Your task to perform on an android device: toggle javascript in the chrome app Image 0: 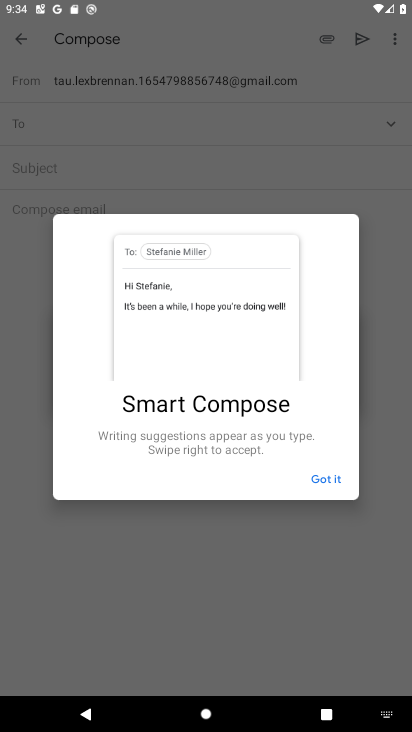
Step 0: press home button
Your task to perform on an android device: toggle javascript in the chrome app Image 1: 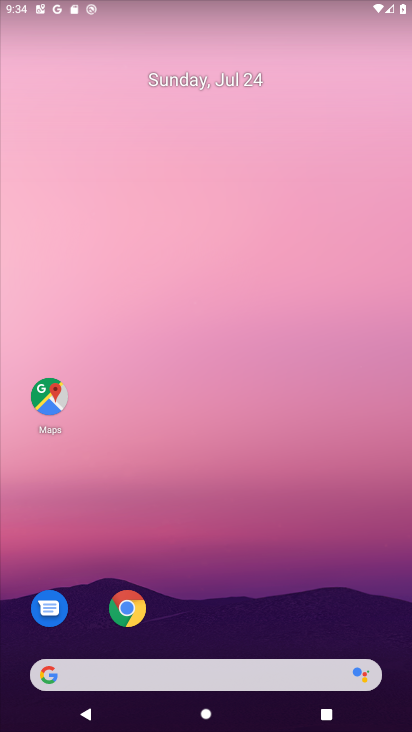
Step 1: click (135, 608)
Your task to perform on an android device: toggle javascript in the chrome app Image 2: 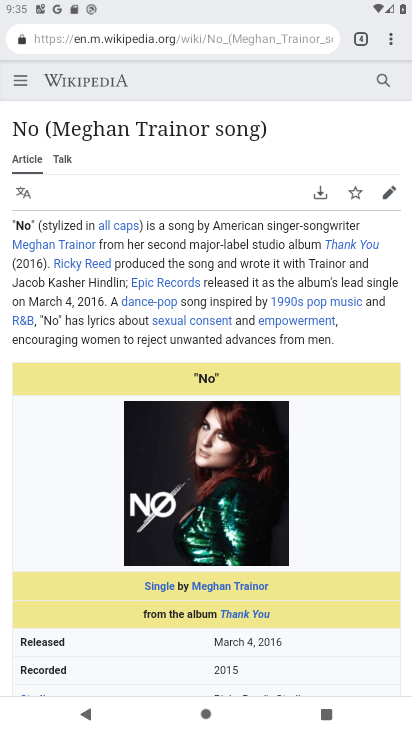
Step 2: click (392, 34)
Your task to perform on an android device: toggle javascript in the chrome app Image 3: 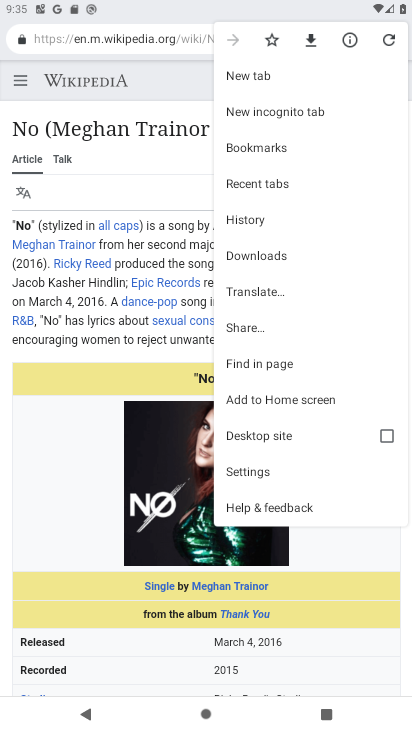
Step 3: click (240, 470)
Your task to perform on an android device: toggle javascript in the chrome app Image 4: 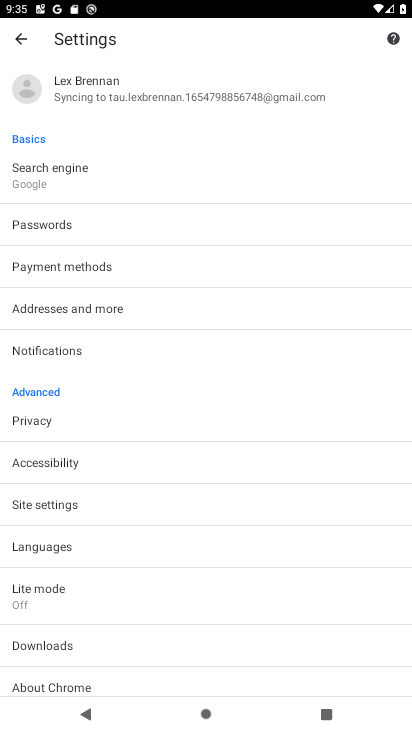
Step 4: click (60, 489)
Your task to perform on an android device: toggle javascript in the chrome app Image 5: 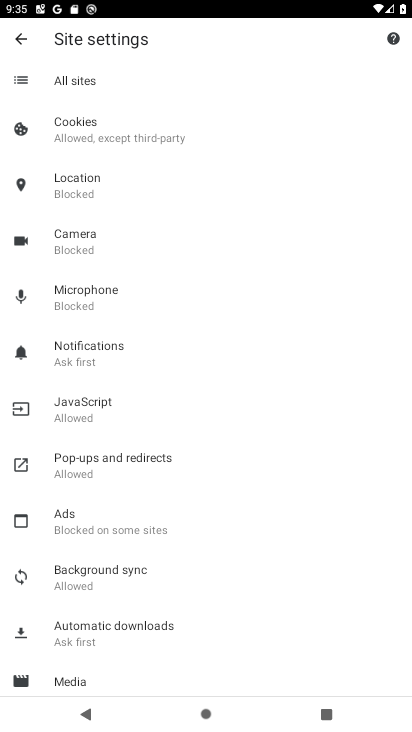
Step 5: click (129, 407)
Your task to perform on an android device: toggle javascript in the chrome app Image 6: 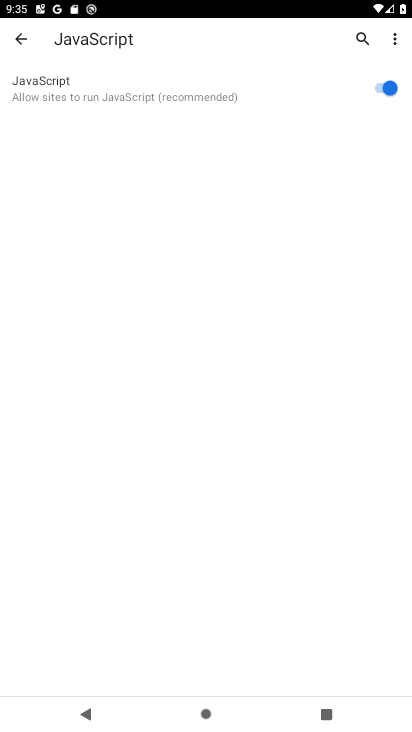
Step 6: click (379, 91)
Your task to perform on an android device: toggle javascript in the chrome app Image 7: 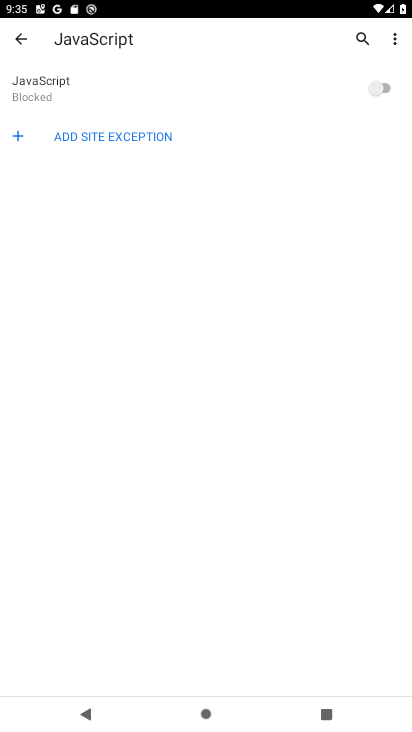
Step 7: click (379, 91)
Your task to perform on an android device: toggle javascript in the chrome app Image 8: 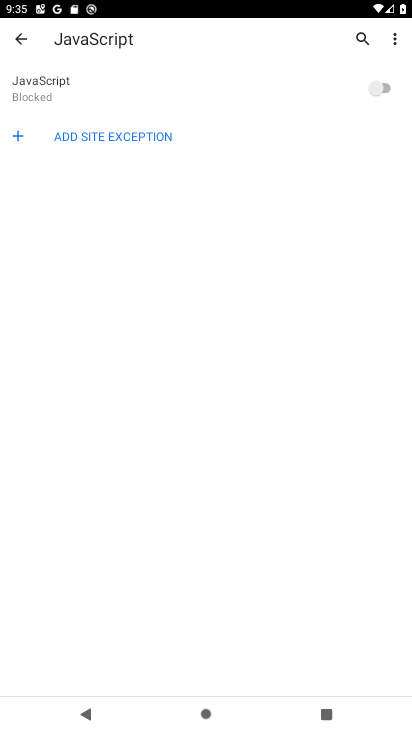
Step 8: click (379, 91)
Your task to perform on an android device: toggle javascript in the chrome app Image 9: 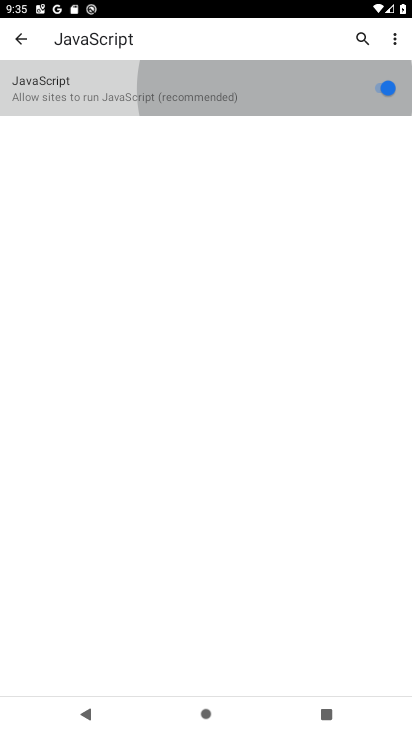
Step 9: click (379, 91)
Your task to perform on an android device: toggle javascript in the chrome app Image 10: 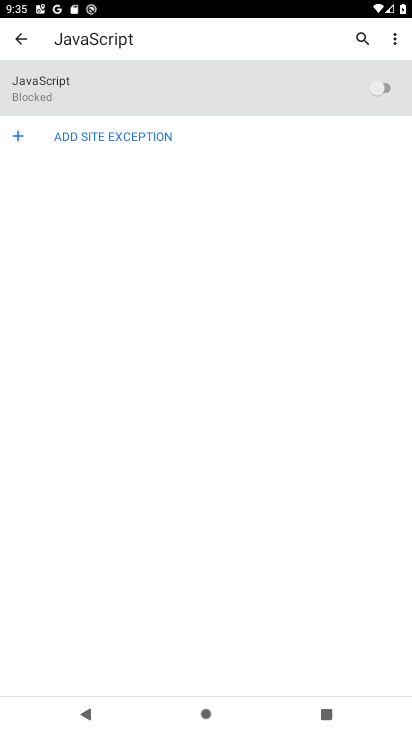
Step 10: click (379, 91)
Your task to perform on an android device: toggle javascript in the chrome app Image 11: 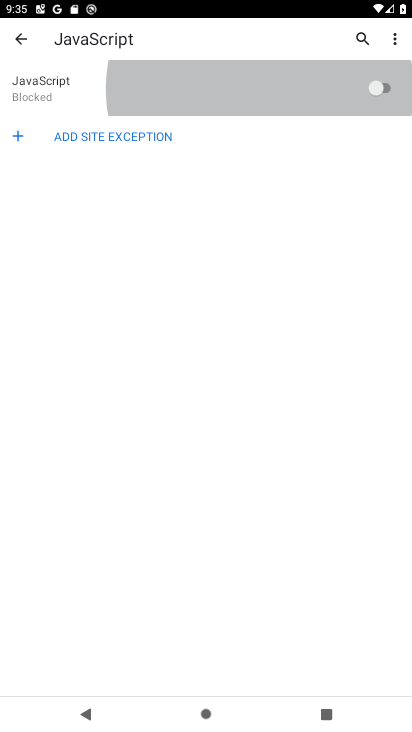
Step 11: click (379, 91)
Your task to perform on an android device: toggle javascript in the chrome app Image 12: 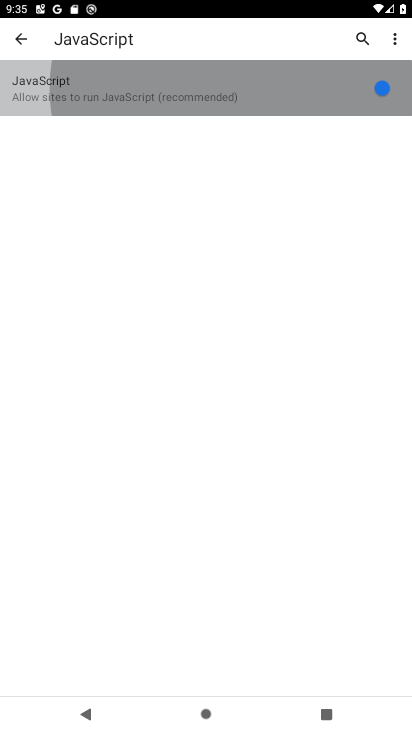
Step 12: click (379, 91)
Your task to perform on an android device: toggle javascript in the chrome app Image 13: 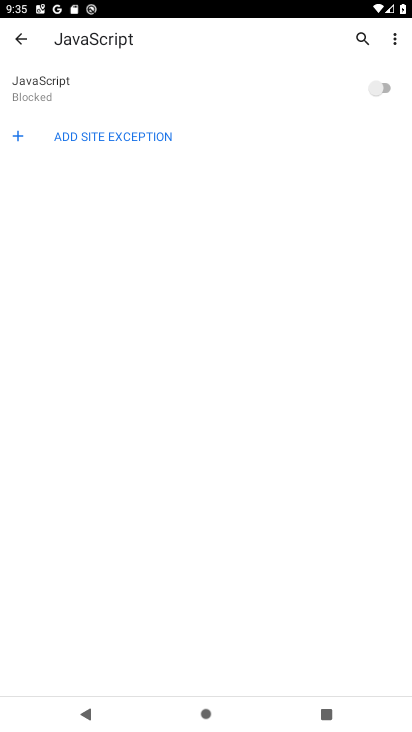
Step 13: task complete